Your task to perform on an android device: turn on notifications settings in the gmail app Image 0: 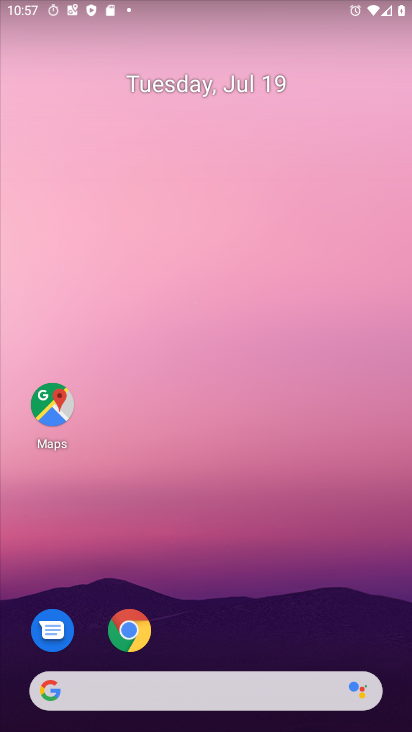
Step 0: press home button
Your task to perform on an android device: turn on notifications settings in the gmail app Image 1: 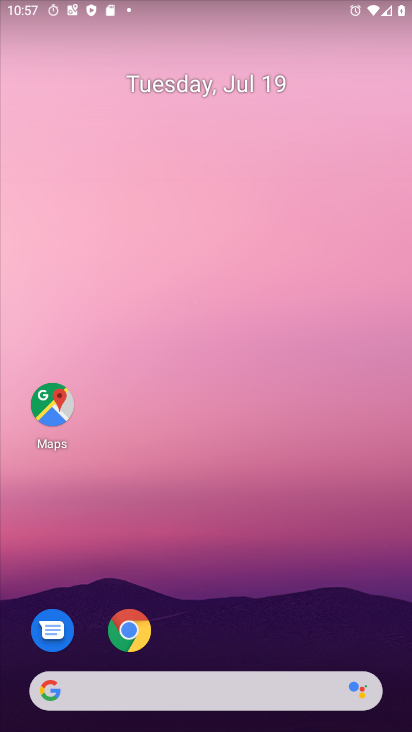
Step 1: drag from (278, 613) to (172, 34)
Your task to perform on an android device: turn on notifications settings in the gmail app Image 2: 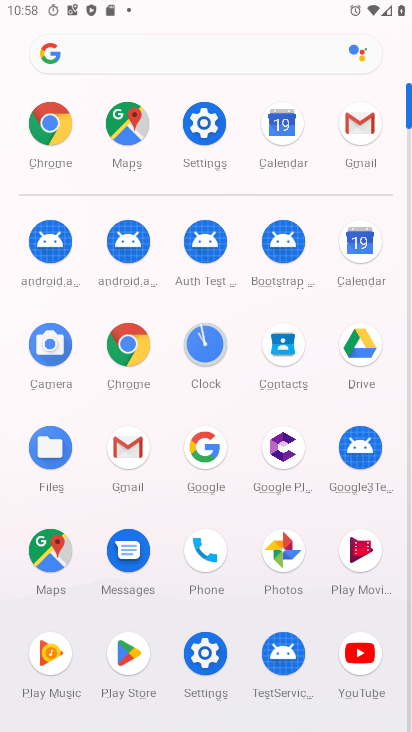
Step 2: click (353, 132)
Your task to perform on an android device: turn on notifications settings in the gmail app Image 3: 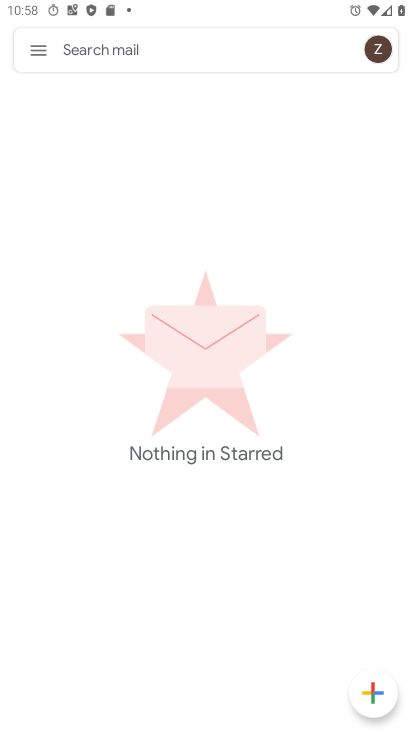
Step 3: click (35, 49)
Your task to perform on an android device: turn on notifications settings in the gmail app Image 4: 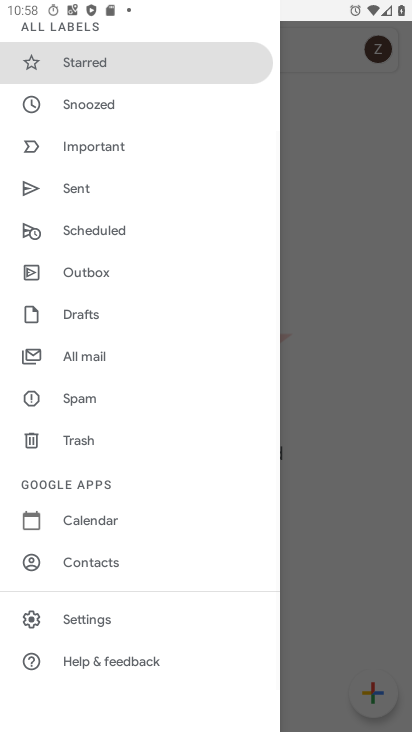
Step 4: click (103, 613)
Your task to perform on an android device: turn on notifications settings in the gmail app Image 5: 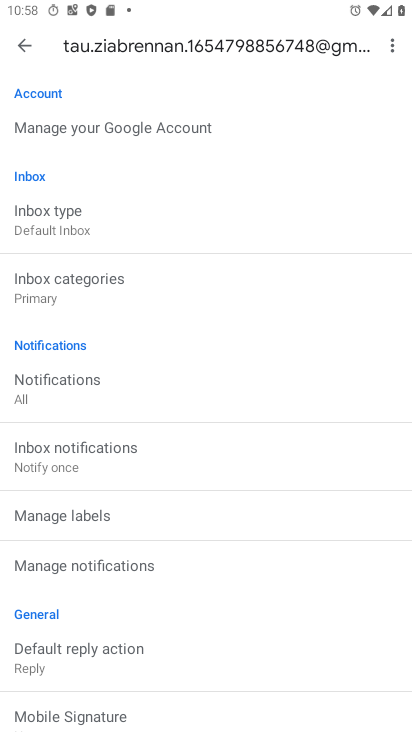
Step 5: click (33, 567)
Your task to perform on an android device: turn on notifications settings in the gmail app Image 6: 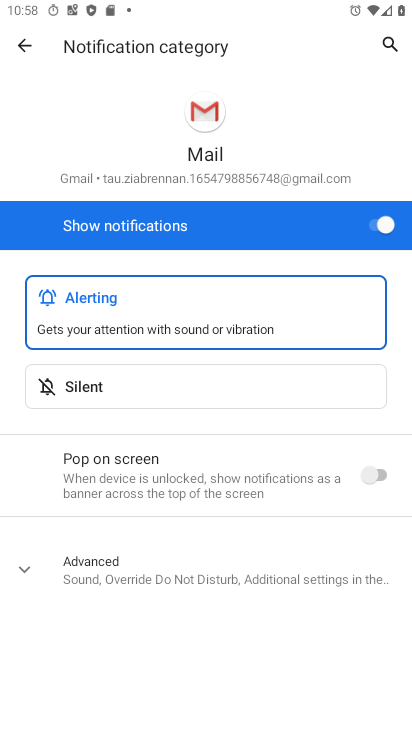
Step 6: task complete